Your task to perform on an android device: Go to sound settings Image 0: 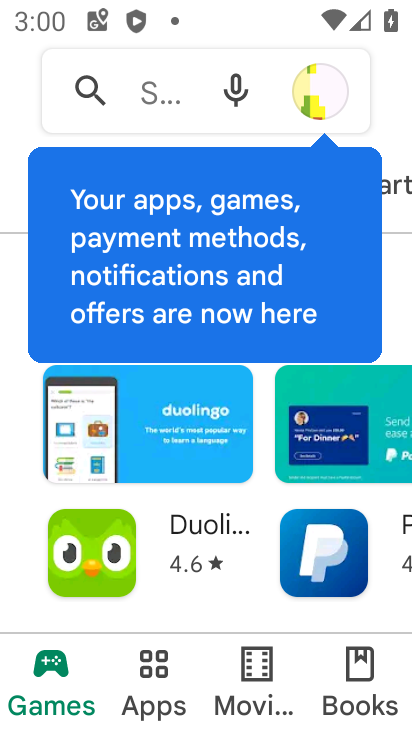
Step 0: press back button
Your task to perform on an android device: Go to sound settings Image 1: 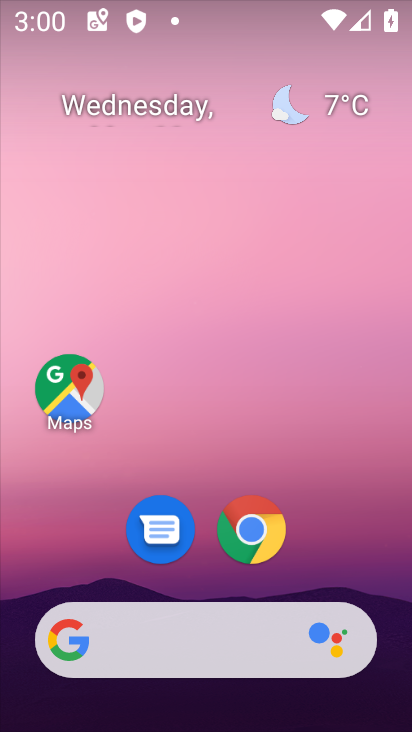
Step 1: drag from (32, 633) to (268, 135)
Your task to perform on an android device: Go to sound settings Image 2: 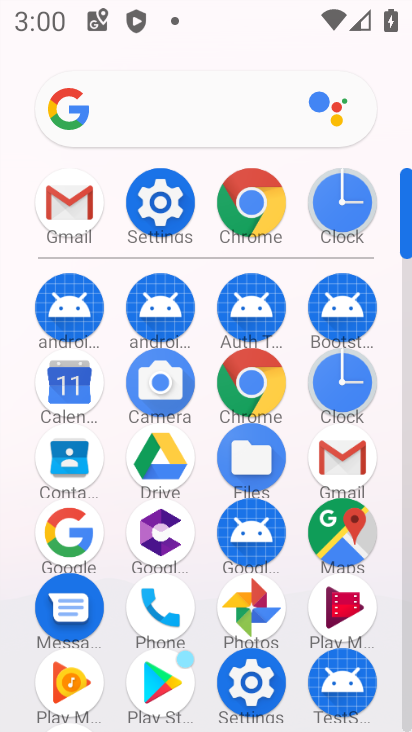
Step 2: click (151, 211)
Your task to perform on an android device: Go to sound settings Image 3: 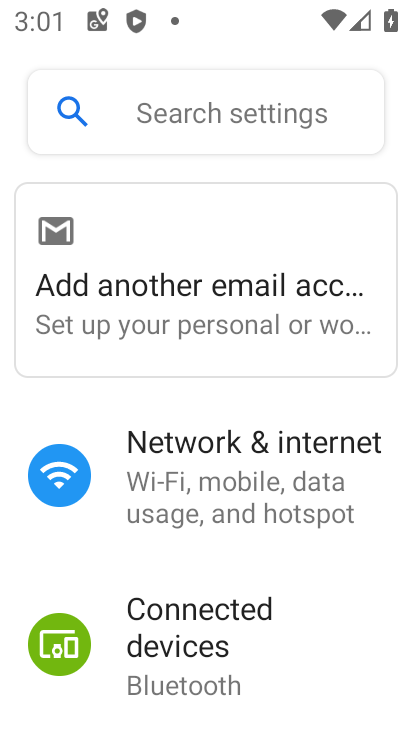
Step 3: drag from (176, 713) to (398, 166)
Your task to perform on an android device: Go to sound settings Image 4: 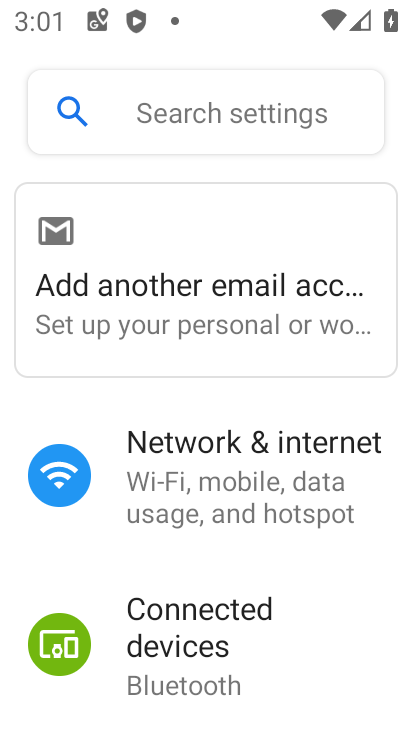
Step 4: drag from (167, 623) to (338, 223)
Your task to perform on an android device: Go to sound settings Image 5: 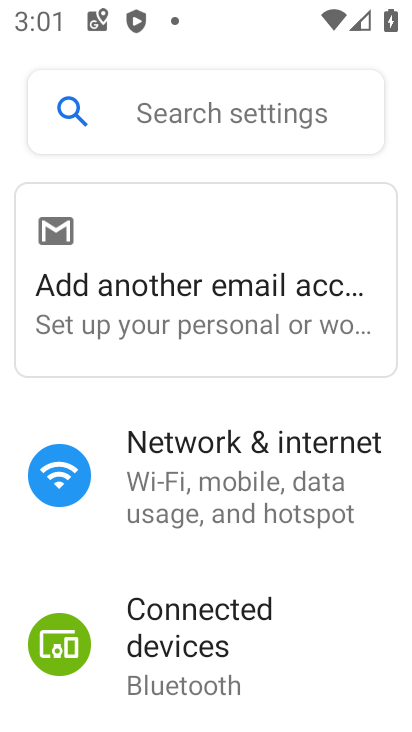
Step 5: drag from (40, 719) to (364, 248)
Your task to perform on an android device: Go to sound settings Image 6: 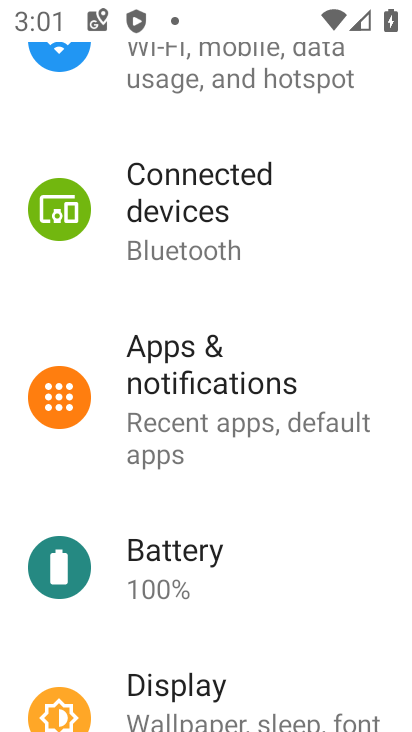
Step 6: drag from (154, 702) to (324, 289)
Your task to perform on an android device: Go to sound settings Image 7: 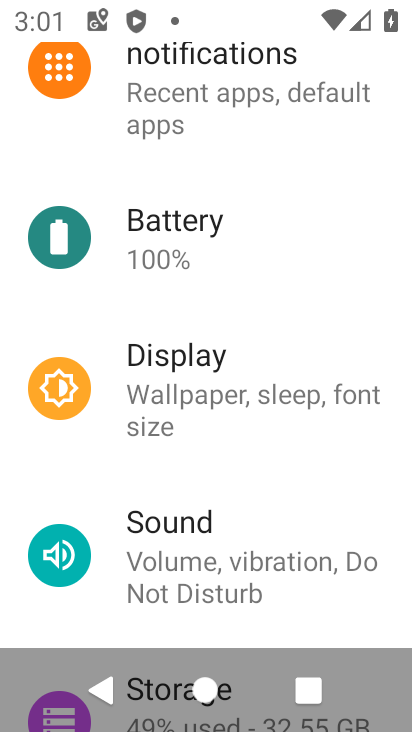
Step 7: click (192, 578)
Your task to perform on an android device: Go to sound settings Image 8: 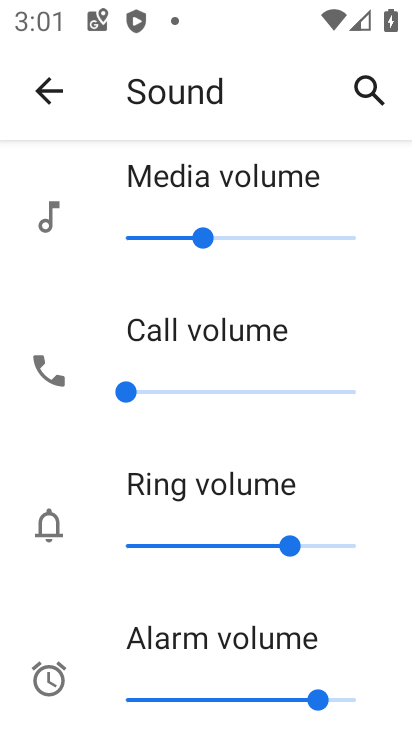
Step 8: task complete